Your task to perform on an android device: Go to notification settings Image 0: 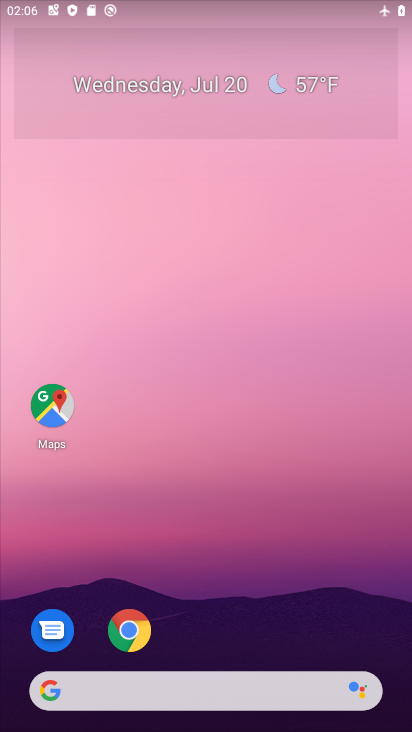
Step 0: drag from (253, 552) to (262, 30)
Your task to perform on an android device: Go to notification settings Image 1: 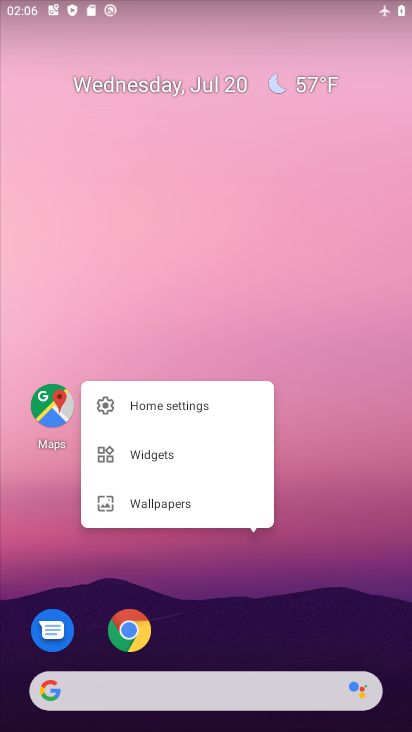
Step 1: click (315, 379)
Your task to perform on an android device: Go to notification settings Image 2: 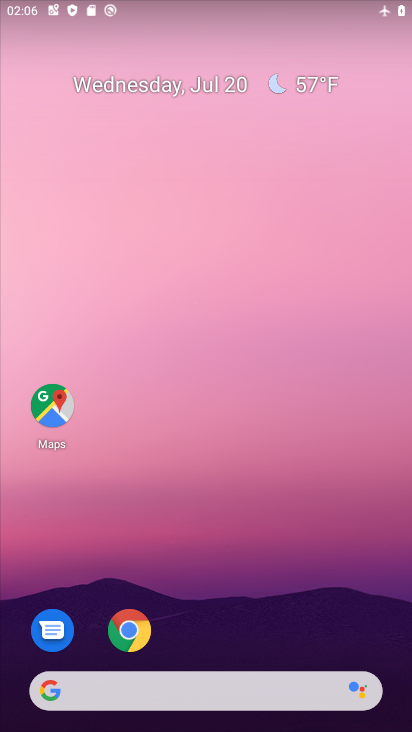
Step 2: drag from (296, 585) to (236, 106)
Your task to perform on an android device: Go to notification settings Image 3: 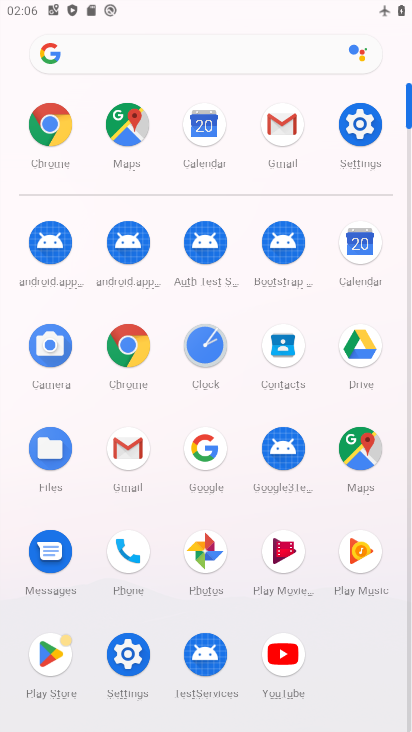
Step 3: click (352, 124)
Your task to perform on an android device: Go to notification settings Image 4: 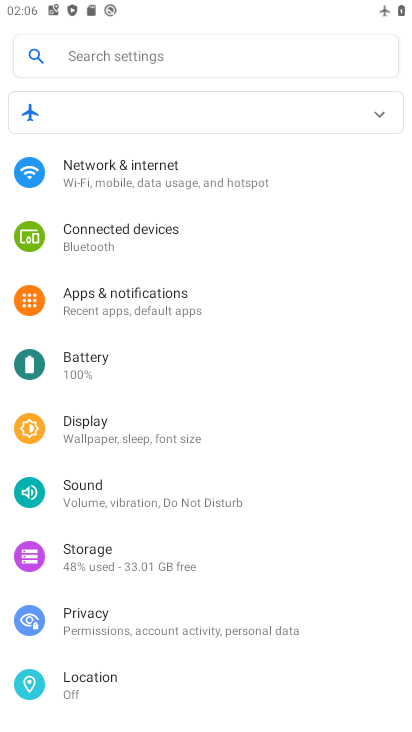
Step 4: click (196, 315)
Your task to perform on an android device: Go to notification settings Image 5: 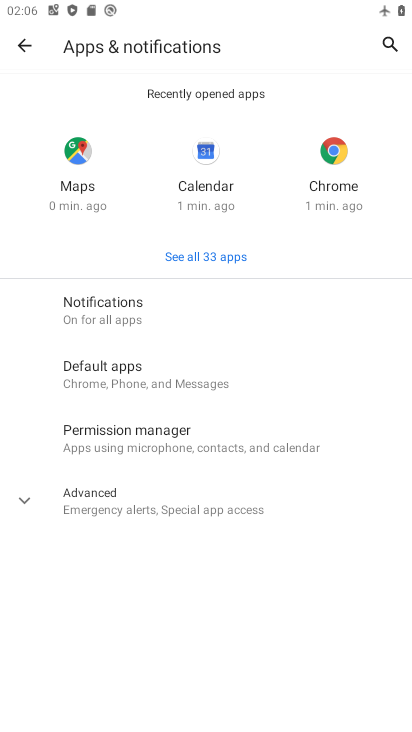
Step 5: click (160, 307)
Your task to perform on an android device: Go to notification settings Image 6: 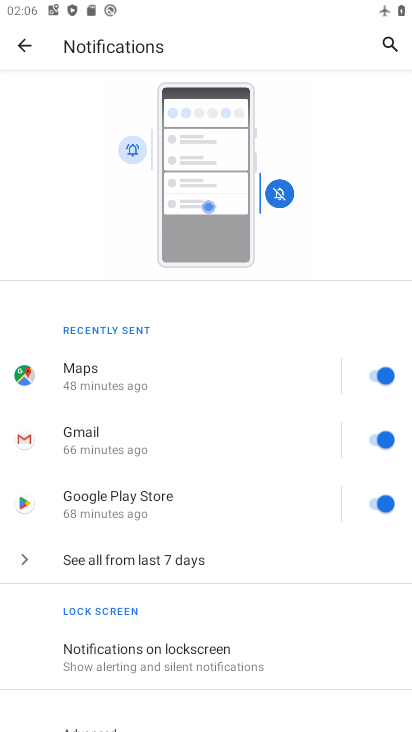
Step 6: task complete